Your task to perform on an android device: Open Google Chrome and click the shortcut for Amazon.com Image 0: 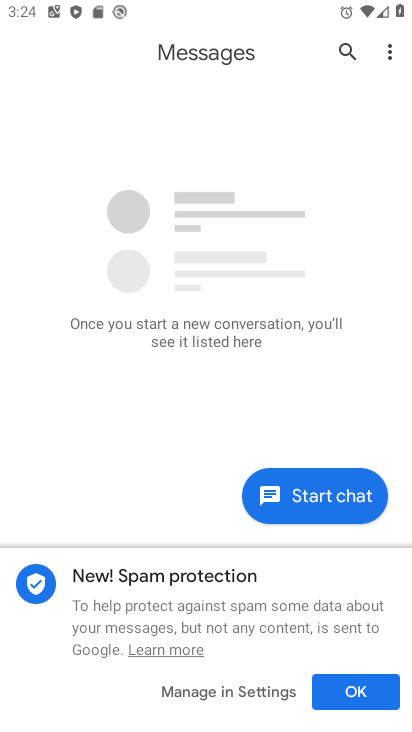
Step 0: press home button
Your task to perform on an android device: Open Google Chrome and click the shortcut for Amazon.com Image 1: 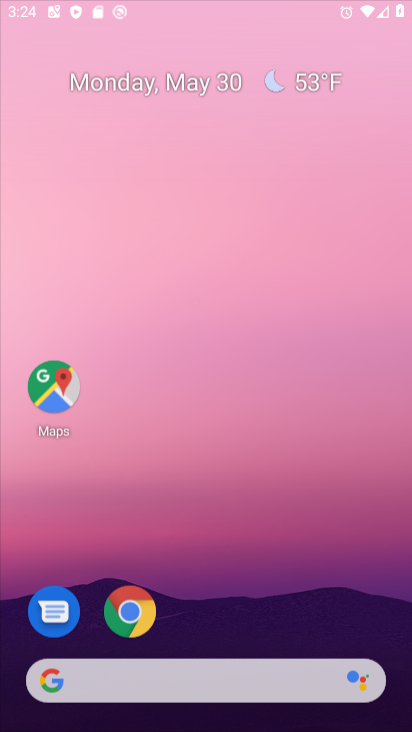
Step 1: press home button
Your task to perform on an android device: Open Google Chrome and click the shortcut for Amazon.com Image 2: 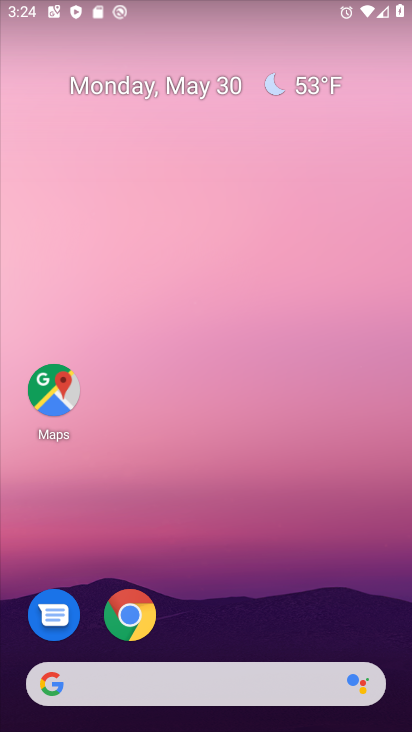
Step 2: click (123, 604)
Your task to perform on an android device: Open Google Chrome and click the shortcut for Amazon.com Image 3: 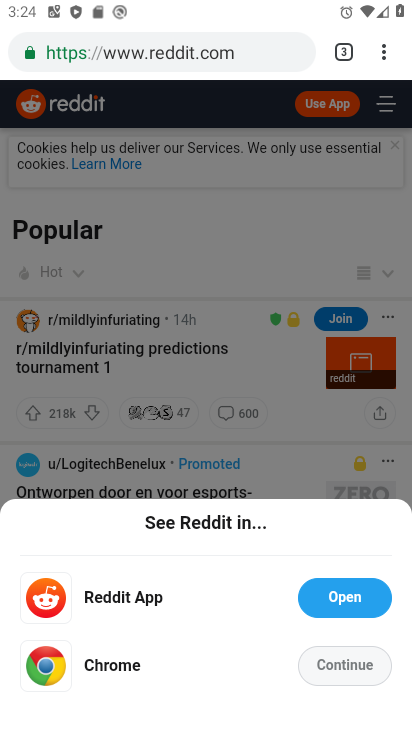
Step 3: click (346, 63)
Your task to perform on an android device: Open Google Chrome and click the shortcut for Amazon.com Image 4: 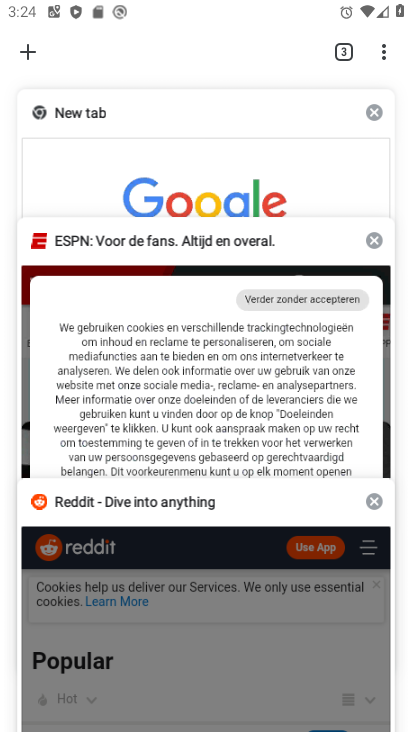
Step 4: click (376, 500)
Your task to perform on an android device: Open Google Chrome and click the shortcut for Amazon.com Image 5: 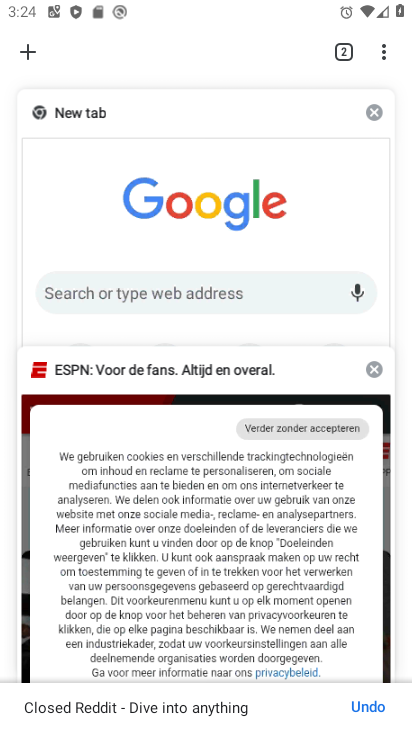
Step 5: click (372, 377)
Your task to perform on an android device: Open Google Chrome and click the shortcut for Amazon.com Image 6: 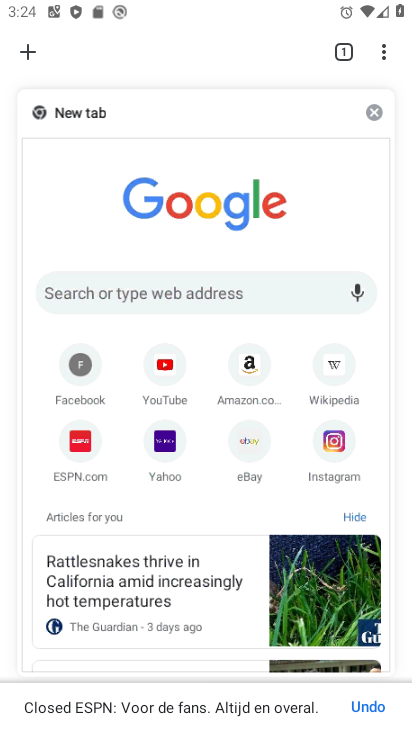
Step 6: click (372, 117)
Your task to perform on an android device: Open Google Chrome and click the shortcut for Amazon.com Image 7: 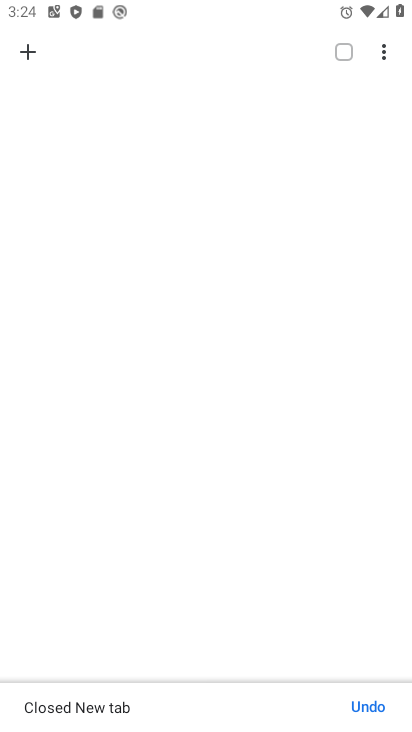
Step 7: click (27, 43)
Your task to perform on an android device: Open Google Chrome and click the shortcut for Amazon.com Image 8: 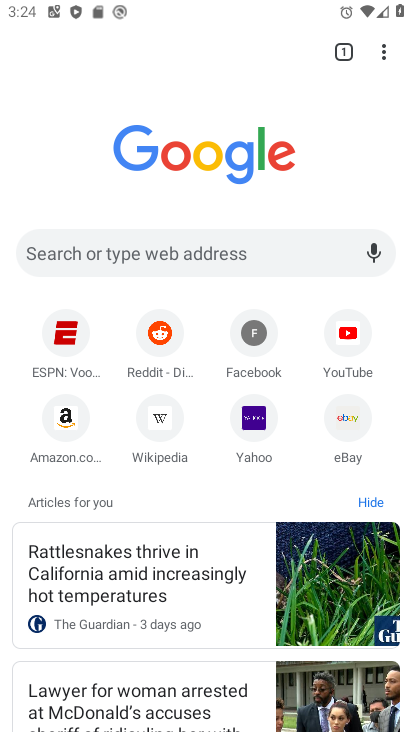
Step 8: click (50, 431)
Your task to perform on an android device: Open Google Chrome and click the shortcut for Amazon.com Image 9: 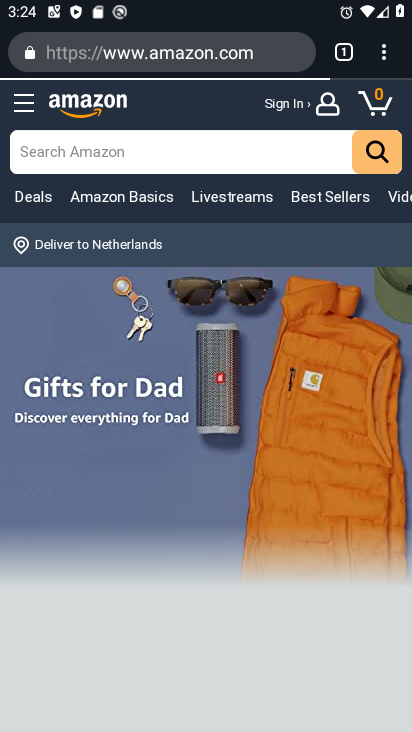
Step 9: task complete